Your task to perform on an android device: Open the calendar app, open the side menu, and click the "Day" option Image 0: 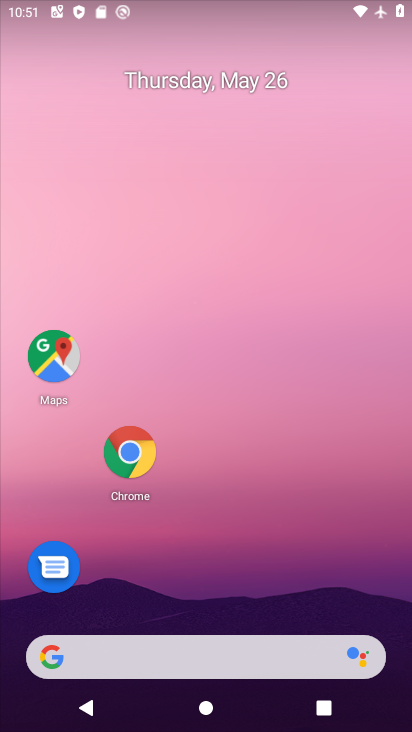
Step 0: press home button
Your task to perform on an android device: Open the calendar app, open the side menu, and click the "Day" option Image 1: 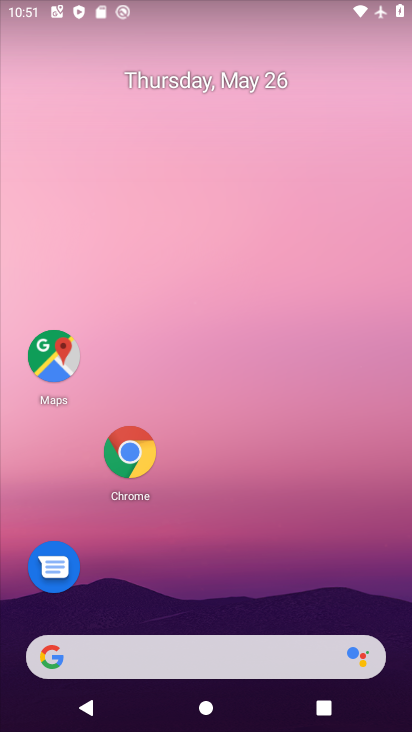
Step 1: drag from (193, 643) to (259, 43)
Your task to perform on an android device: Open the calendar app, open the side menu, and click the "Day" option Image 2: 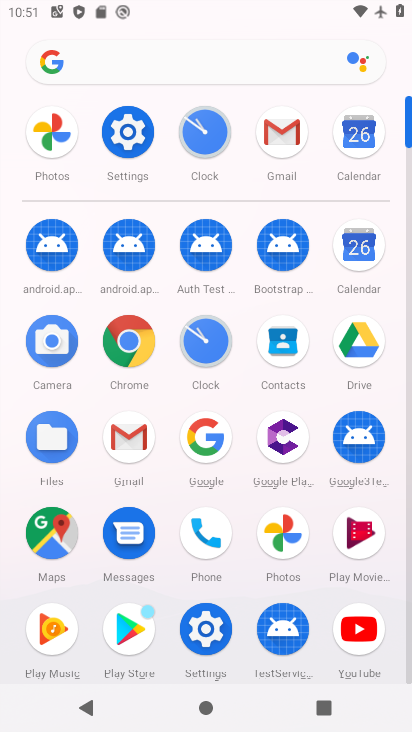
Step 2: click (359, 138)
Your task to perform on an android device: Open the calendar app, open the side menu, and click the "Day" option Image 3: 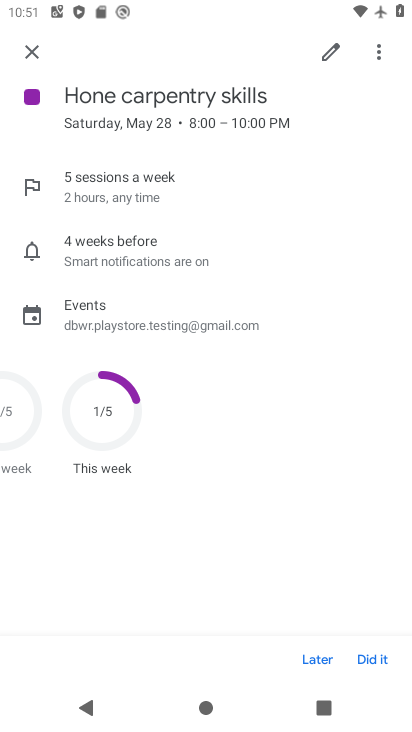
Step 3: click (30, 51)
Your task to perform on an android device: Open the calendar app, open the side menu, and click the "Day" option Image 4: 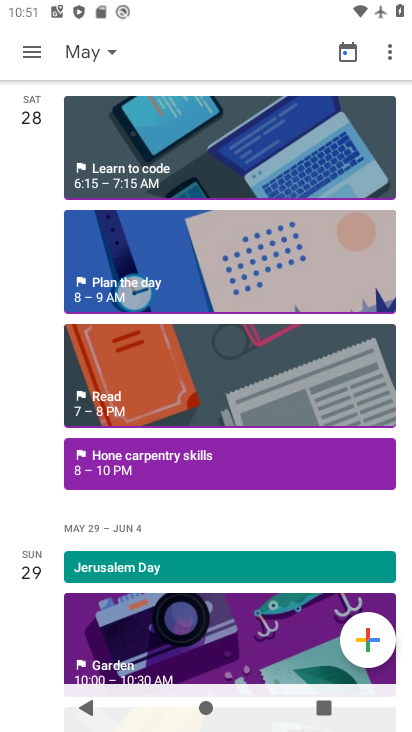
Step 4: click (28, 52)
Your task to perform on an android device: Open the calendar app, open the side menu, and click the "Day" option Image 5: 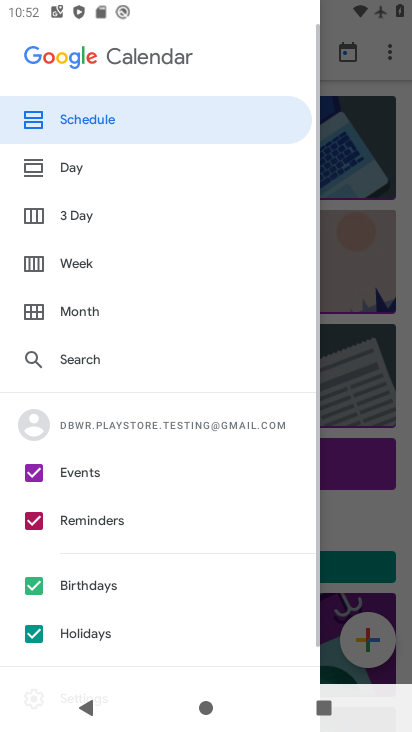
Step 5: click (79, 170)
Your task to perform on an android device: Open the calendar app, open the side menu, and click the "Day" option Image 6: 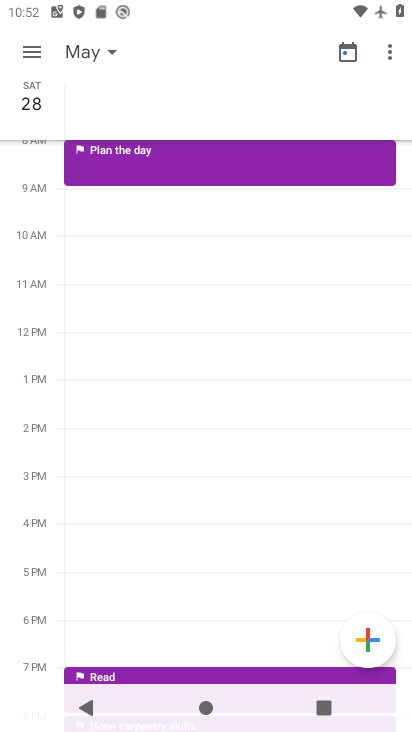
Step 6: task complete